Your task to perform on an android device: Search for alienware area 51 on target.com, select the first entry, and add it to the cart. Image 0: 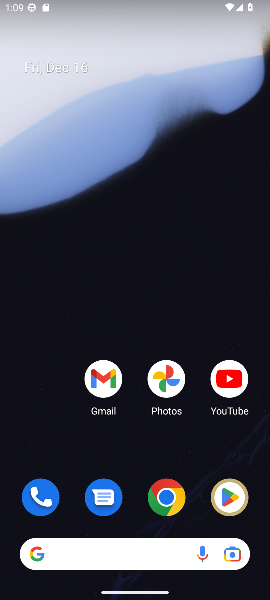
Step 0: click (161, 501)
Your task to perform on an android device: Search for alienware area 51 on target.com, select the first entry, and add it to the cart. Image 1: 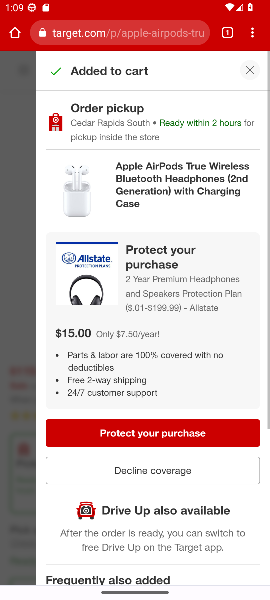
Step 1: click (114, 35)
Your task to perform on an android device: Search for alienware area 51 on target.com, select the first entry, and add it to the cart. Image 2: 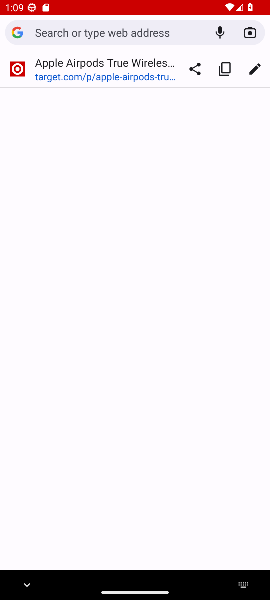
Step 2: type "target"
Your task to perform on an android device: Search for alienware area 51 on target.com, select the first entry, and add it to the cart. Image 3: 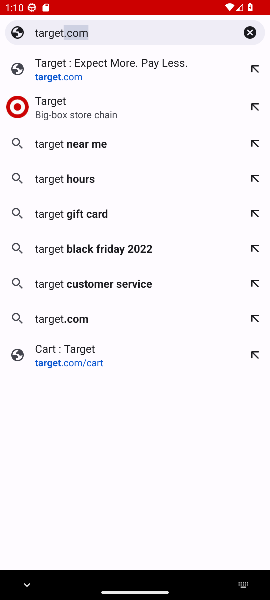
Step 3: click (167, 69)
Your task to perform on an android device: Search for alienware area 51 on target.com, select the first entry, and add it to the cart. Image 4: 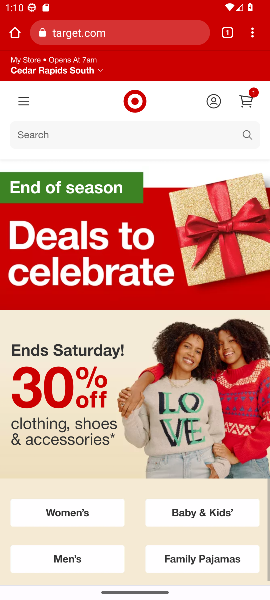
Step 4: click (201, 135)
Your task to perform on an android device: Search for alienware area 51 on target.com, select the first entry, and add it to the cart. Image 5: 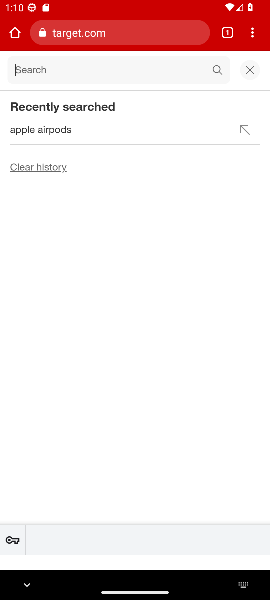
Step 5: click (109, 66)
Your task to perform on an android device: Search for alienware area 51 on target.com, select the first entry, and add it to the cart. Image 6: 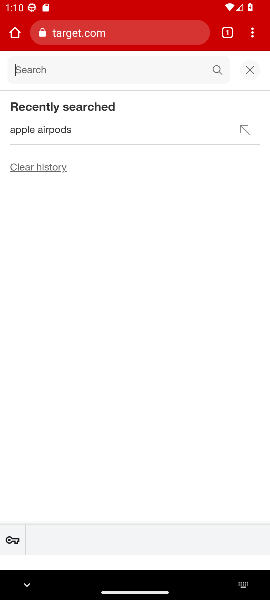
Step 6: type "alienware area 51"
Your task to perform on an android device: Search for alienware area 51 on target.com, select the first entry, and add it to the cart. Image 7: 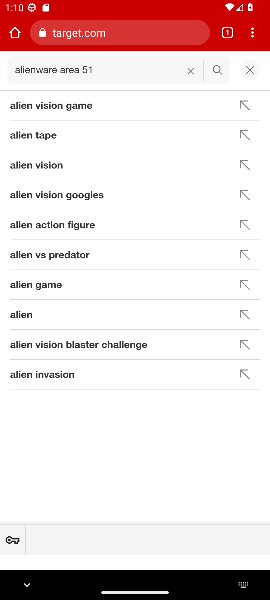
Step 7: click (68, 104)
Your task to perform on an android device: Search for alienware area 51 on target.com, select the first entry, and add it to the cart. Image 8: 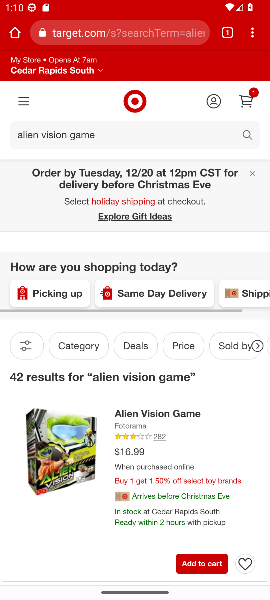
Step 8: click (195, 566)
Your task to perform on an android device: Search for alienware area 51 on target.com, select the first entry, and add it to the cart. Image 9: 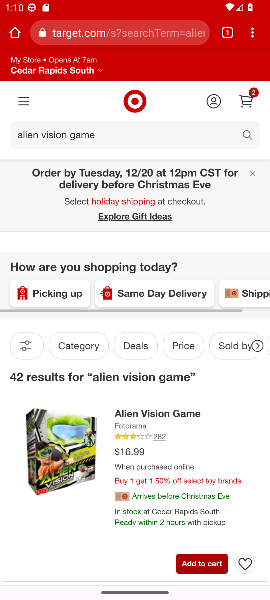
Step 9: task complete